Your task to perform on an android device: check storage Image 0: 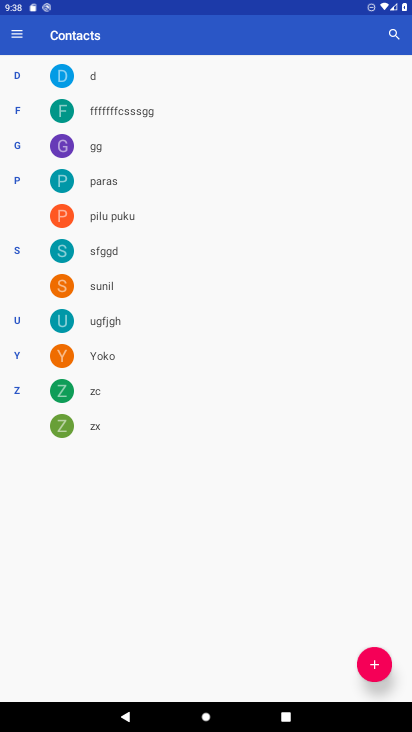
Step 0: press home button
Your task to perform on an android device: check storage Image 1: 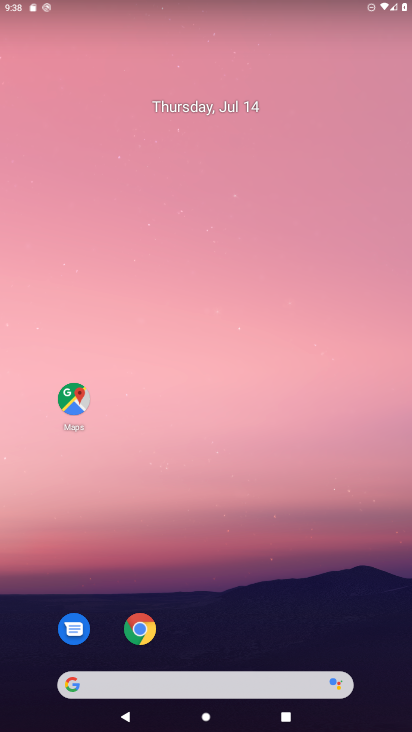
Step 1: drag from (227, 632) to (244, 92)
Your task to perform on an android device: check storage Image 2: 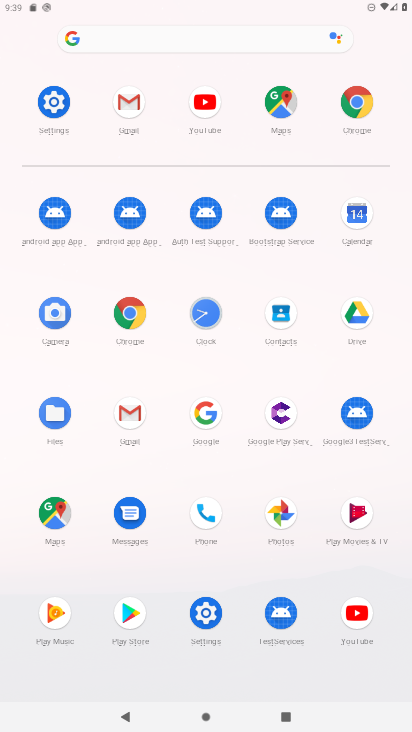
Step 2: click (206, 598)
Your task to perform on an android device: check storage Image 3: 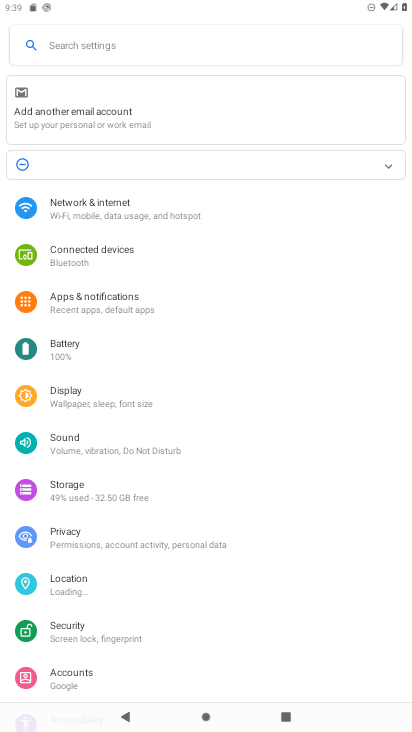
Step 3: click (65, 491)
Your task to perform on an android device: check storage Image 4: 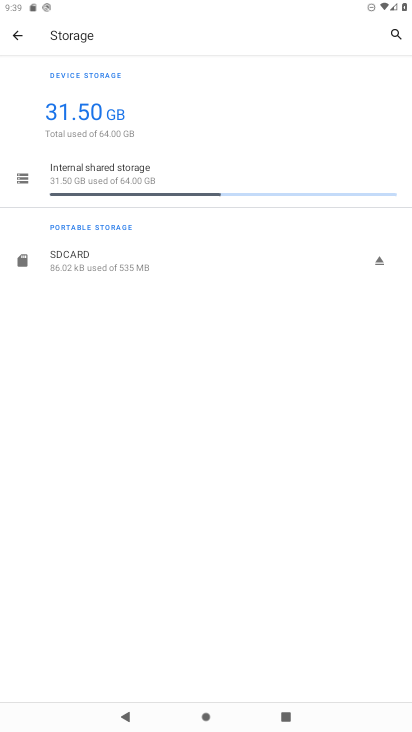
Step 4: task complete